Your task to perform on an android device: Is it going to rain this weekend? Image 0: 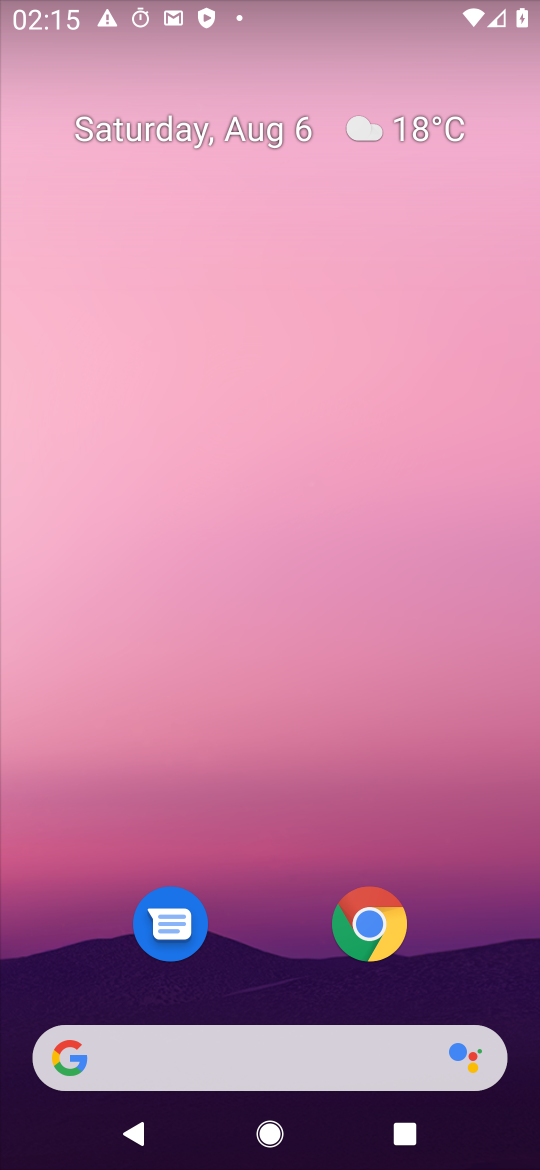
Step 0: click (301, 1088)
Your task to perform on an android device: Is it going to rain this weekend? Image 1: 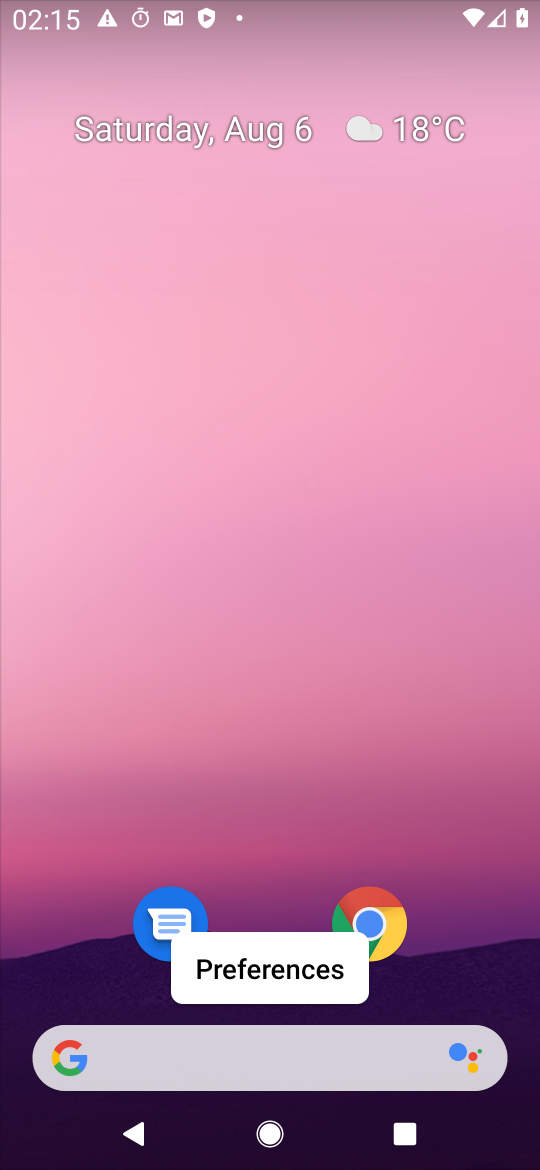
Step 1: drag from (315, 1027) to (280, 317)
Your task to perform on an android device: Is it going to rain this weekend? Image 2: 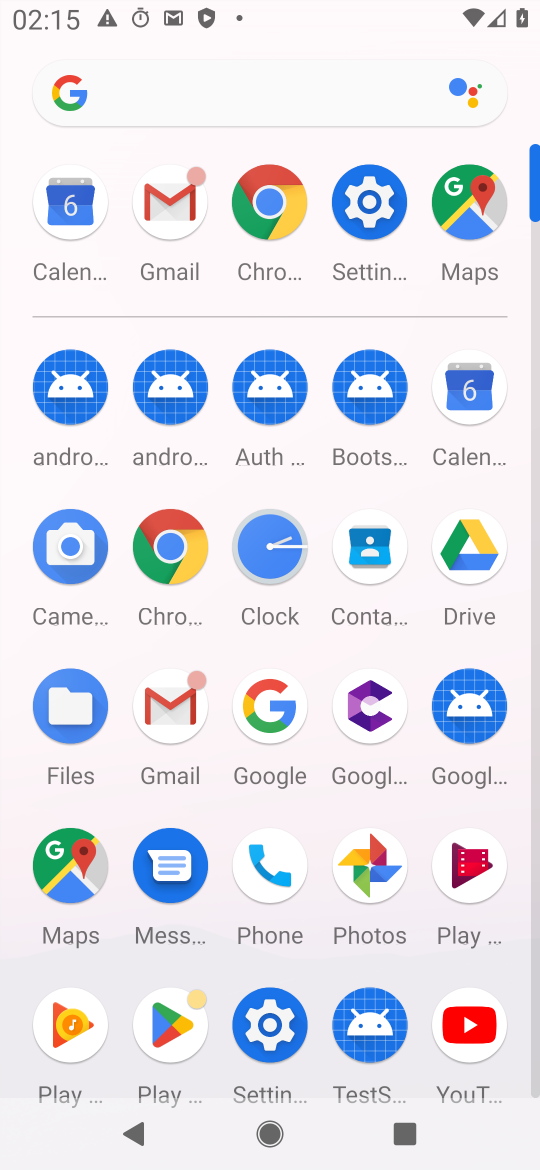
Step 2: click (159, 548)
Your task to perform on an android device: Is it going to rain this weekend? Image 3: 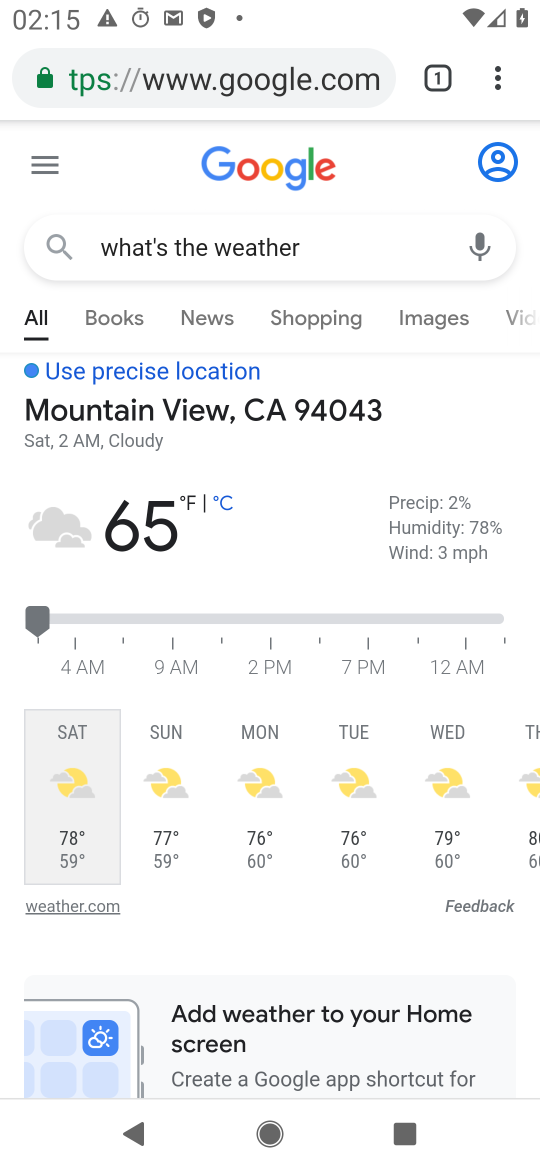
Step 3: click (277, 61)
Your task to perform on an android device: Is it going to rain this weekend? Image 4: 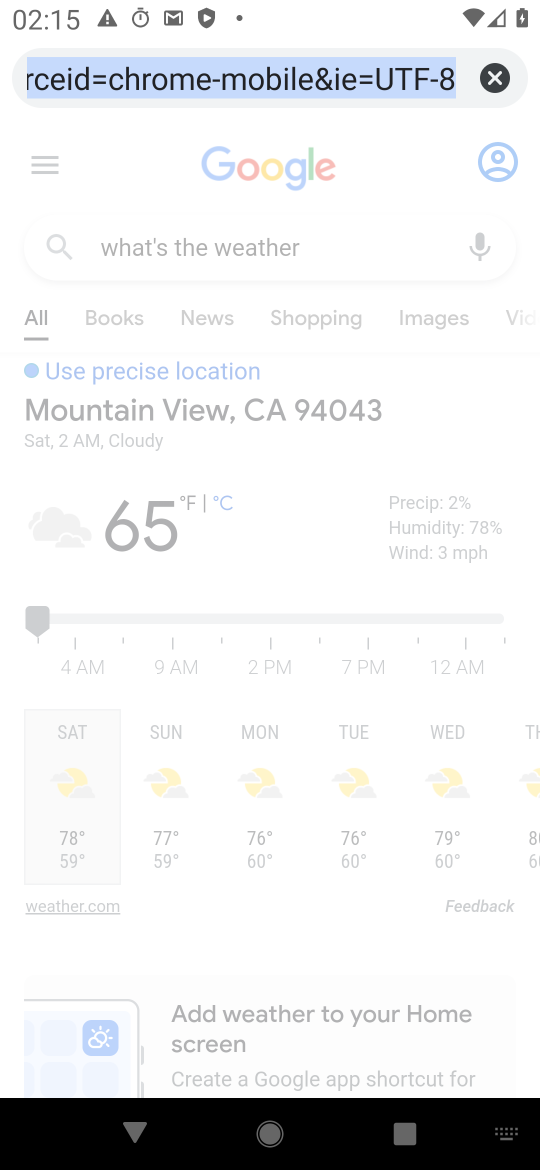
Step 4: type "is it going to rain this weekend"
Your task to perform on an android device: Is it going to rain this weekend? Image 5: 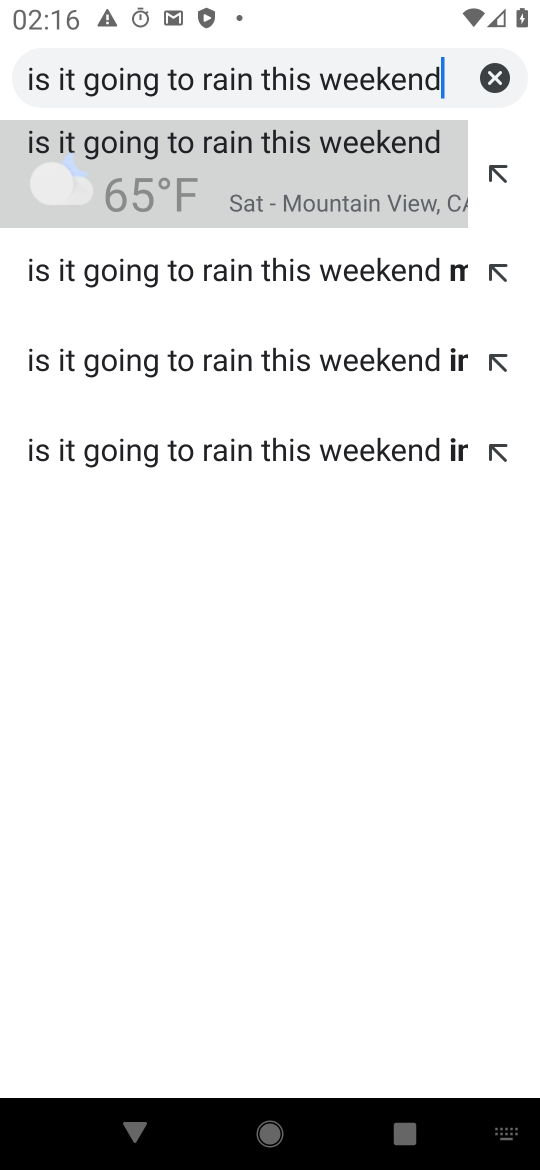
Step 5: click (340, 191)
Your task to perform on an android device: Is it going to rain this weekend? Image 6: 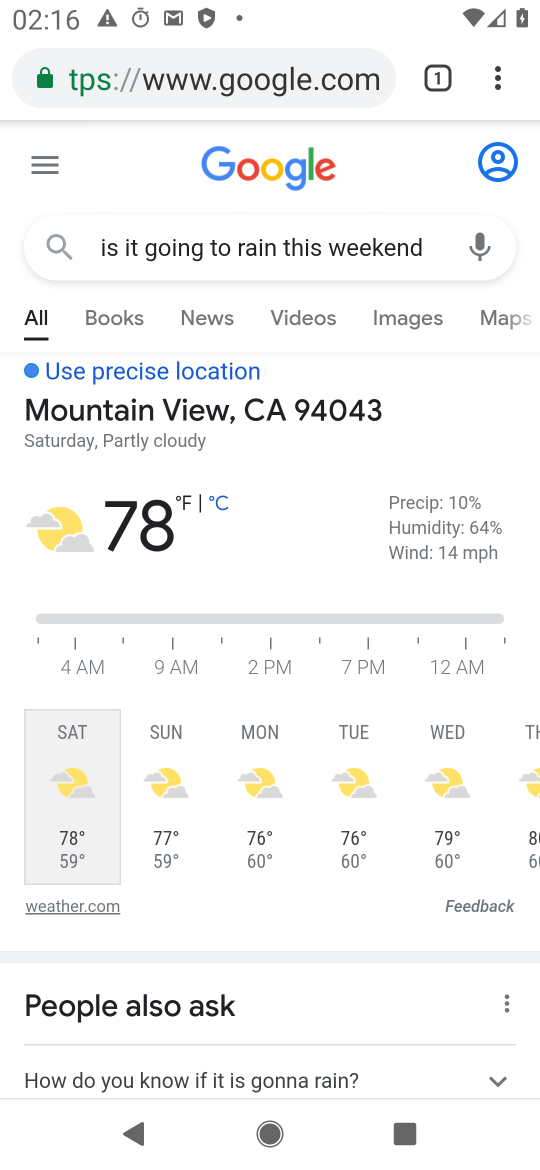
Step 6: task complete